Your task to perform on an android device: Open settings on Google Maps Image 0: 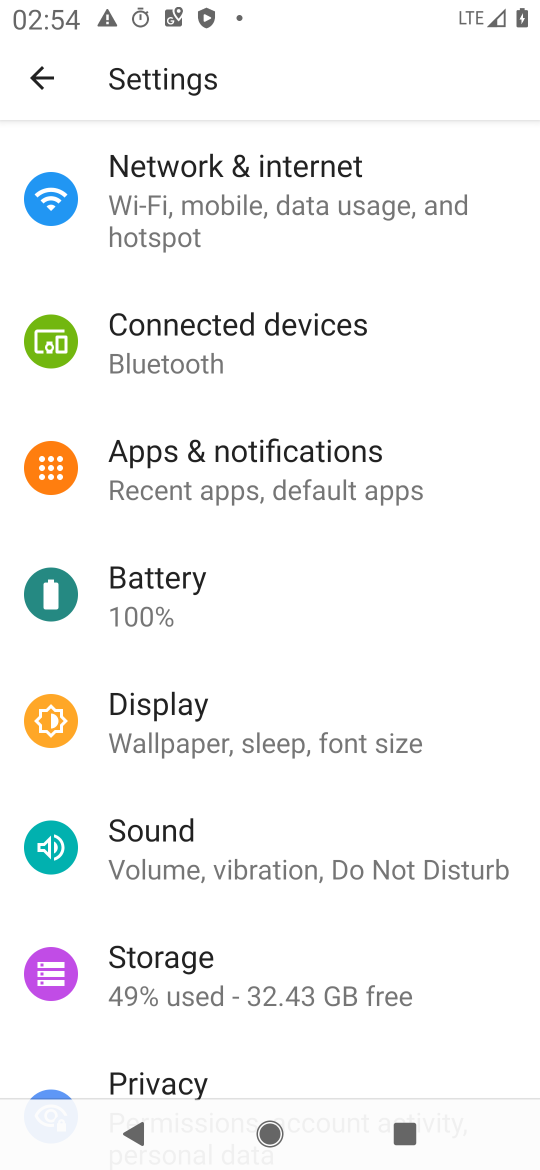
Step 0: press home button
Your task to perform on an android device: Open settings on Google Maps Image 1: 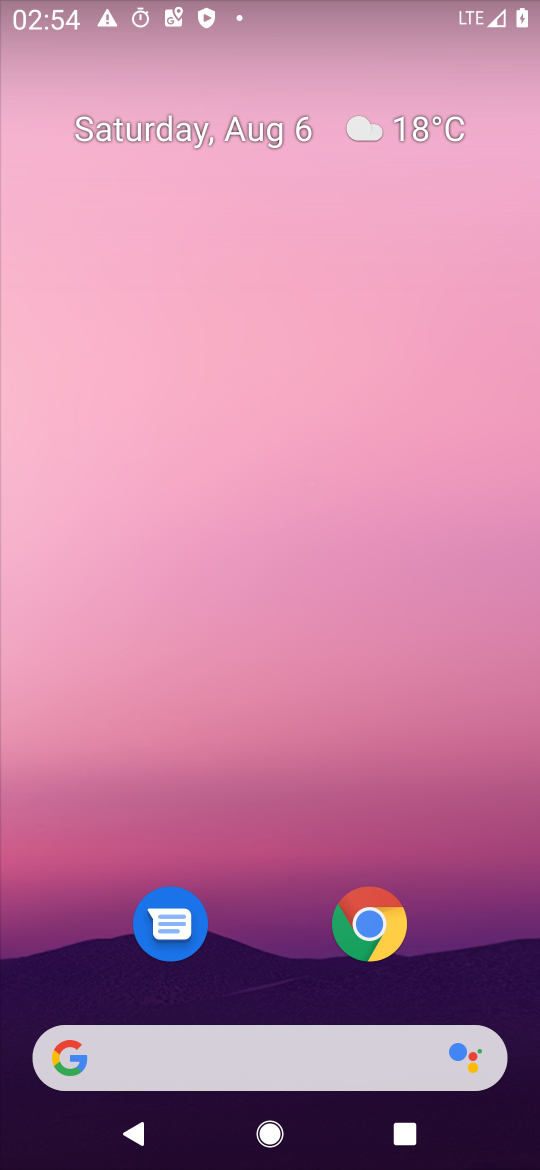
Step 1: drag from (357, 1030) to (390, 108)
Your task to perform on an android device: Open settings on Google Maps Image 2: 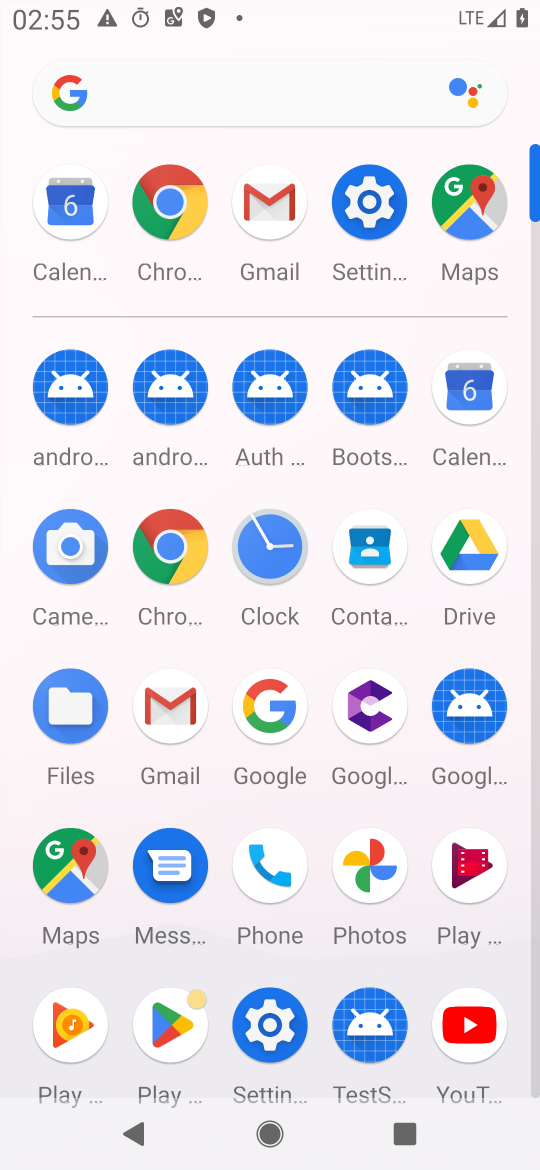
Step 2: click (83, 859)
Your task to perform on an android device: Open settings on Google Maps Image 3: 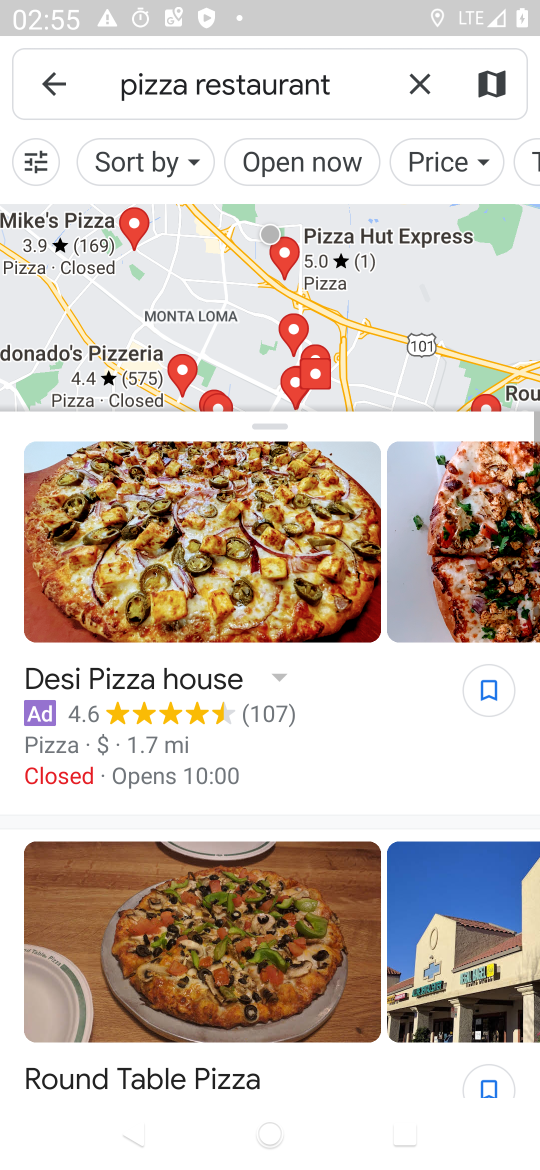
Step 3: press back button
Your task to perform on an android device: Open settings on Google Maps Image 4: 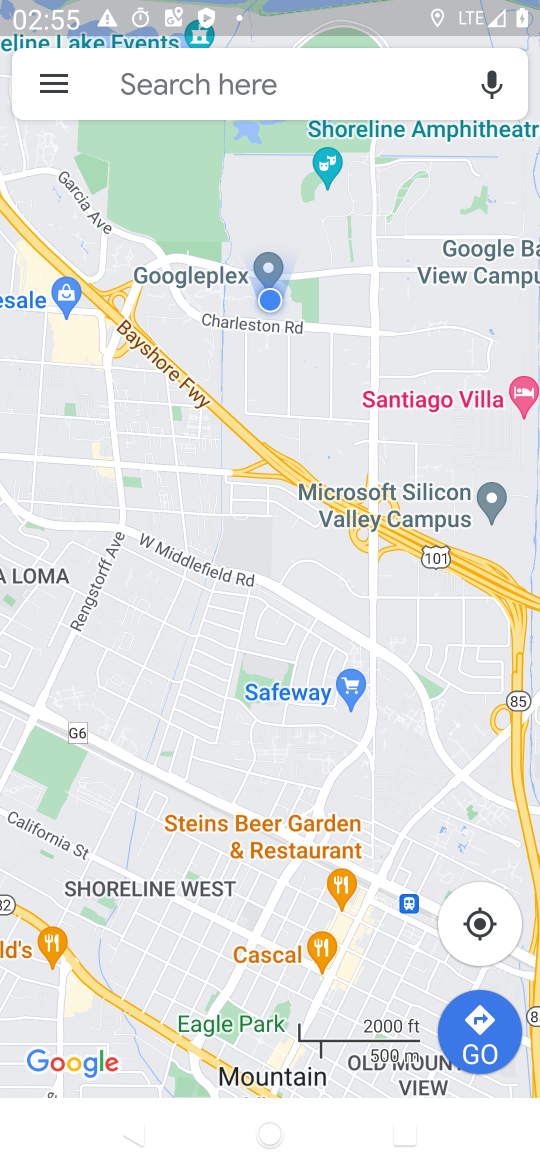
Step 4: click (58, 80)
Your task to perform on an android device: Open settings on Google Maps Image 5: 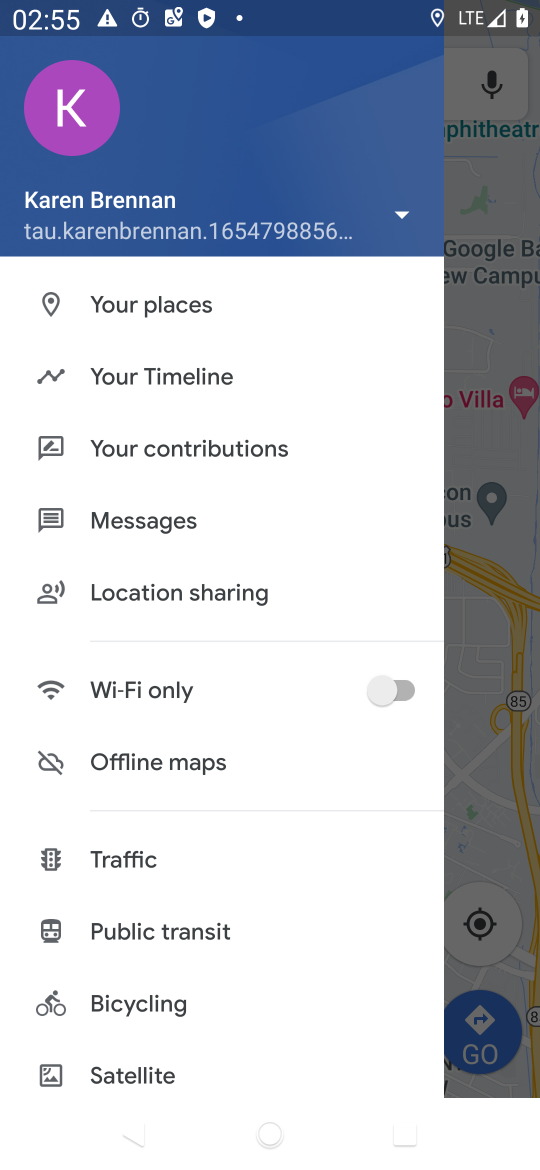
Step 5: click (172, 376)
Your task to perform on an android device: Open settings on Google Maps Image 6: 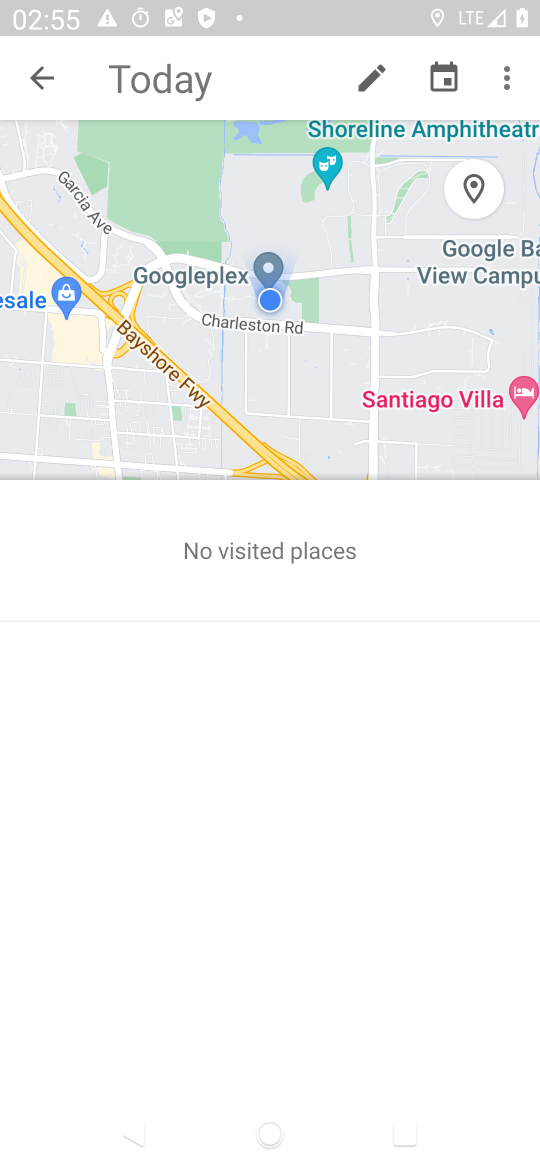
Step 6: click (506, 78)
Your task to perform on an android device: Open settings on Google Maps Image 7: 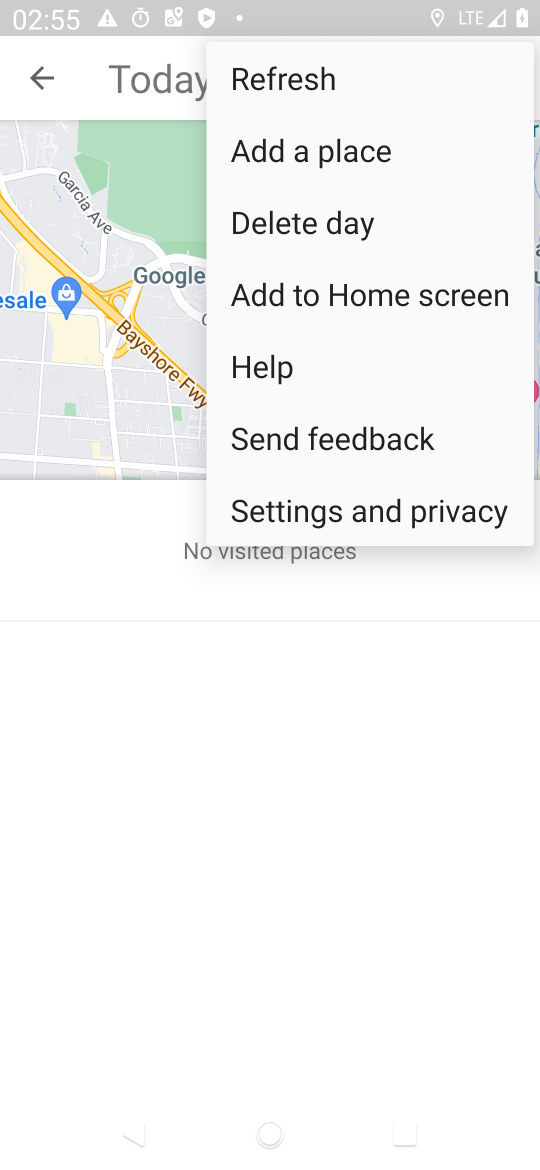
Step 7: click (305, 505)
Your task to perform on an android device: Open settings on Google Maps Image 8: 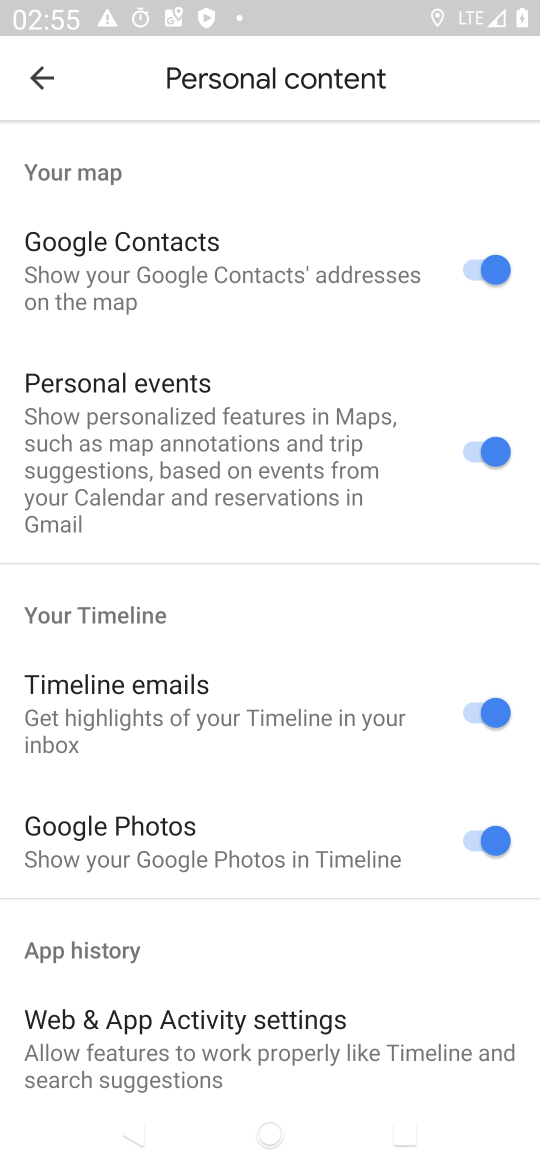
Step 8: task complete